Your task to perform on an android device: turn on translation in the chrome app Image 0: 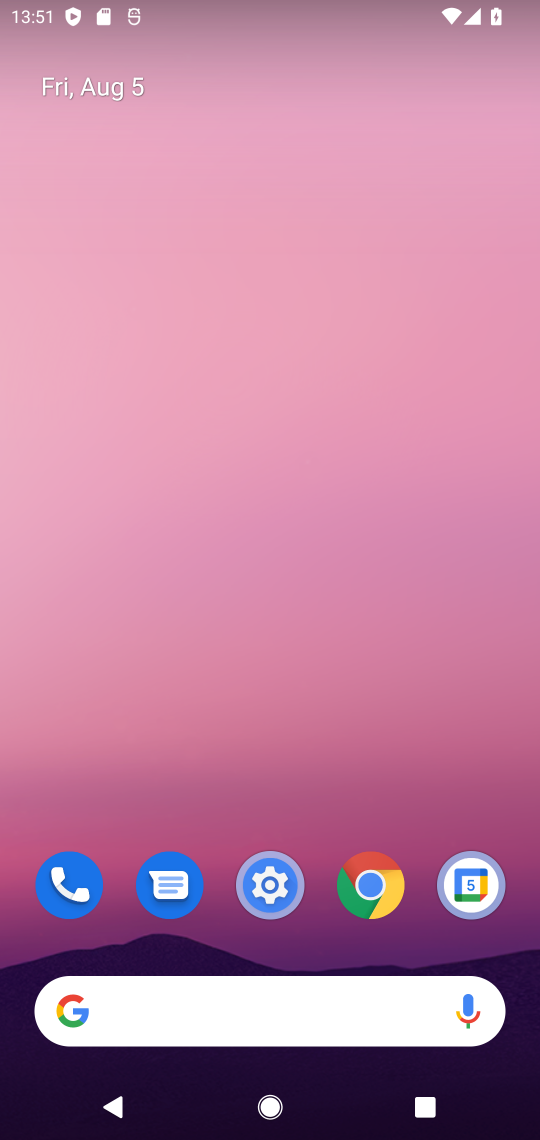
Step 0: click (370, 908)
Your task to perform on an android device: turn on translation in the chrome app Image 1: 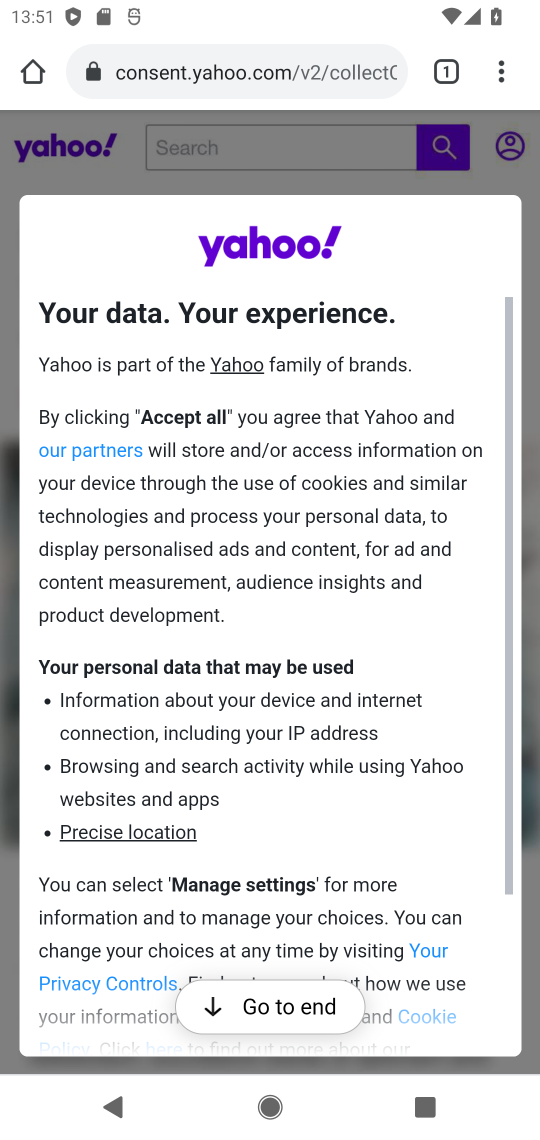
Step 1: click (498, 75)
Your task to perform on an android device: turn on translation in the chrome app Image 2: 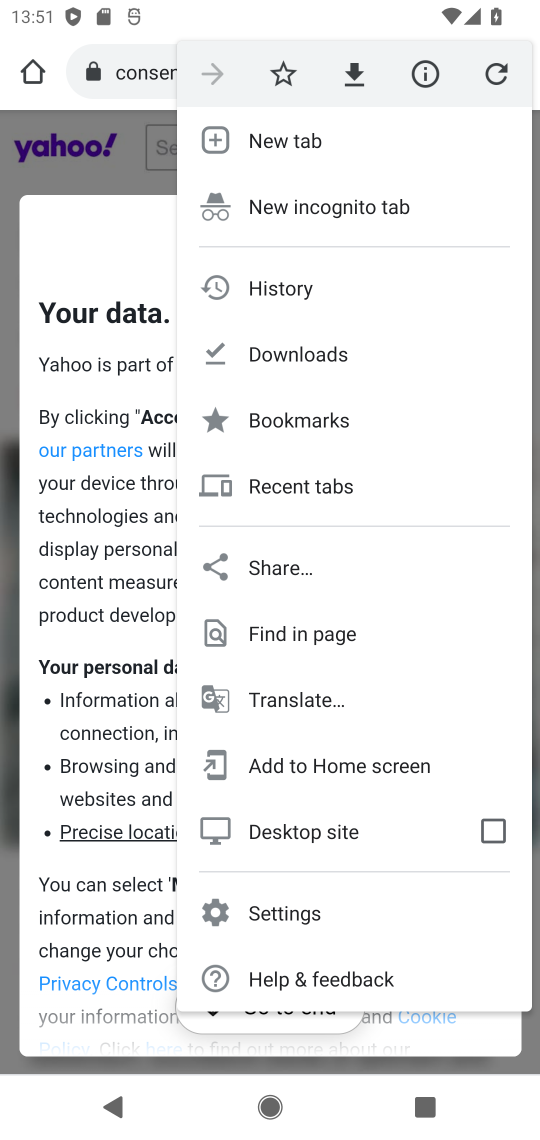
Step 2: click (264, 914)
Your task to perform on an android device: turn on translation in the chrome app Image 3: 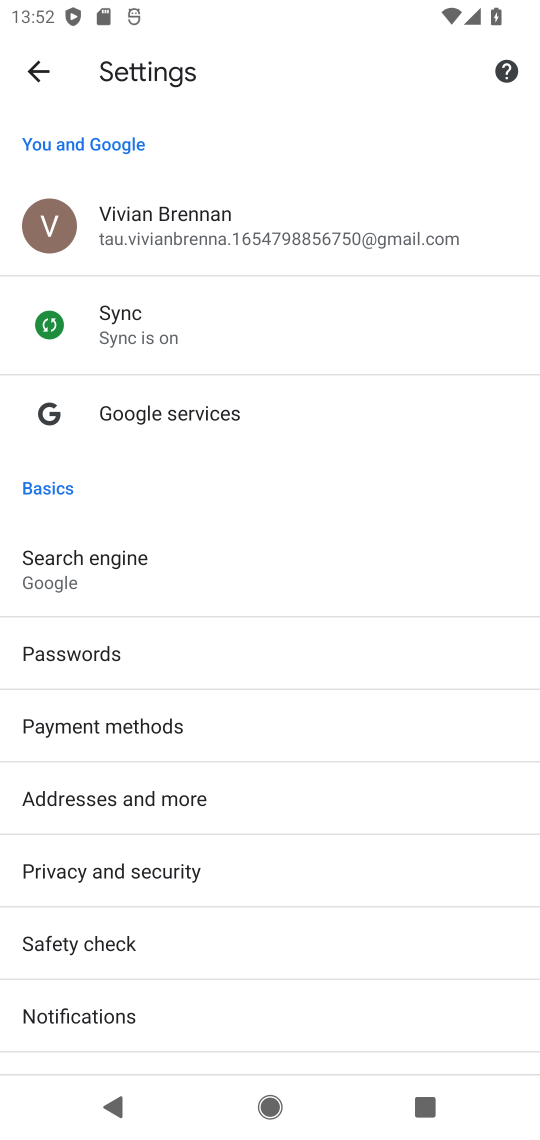
Step 3: drag from (176, 925) to (192, 460)
Your task to perform on an android device: turn on translation in the chrome app Image 4: 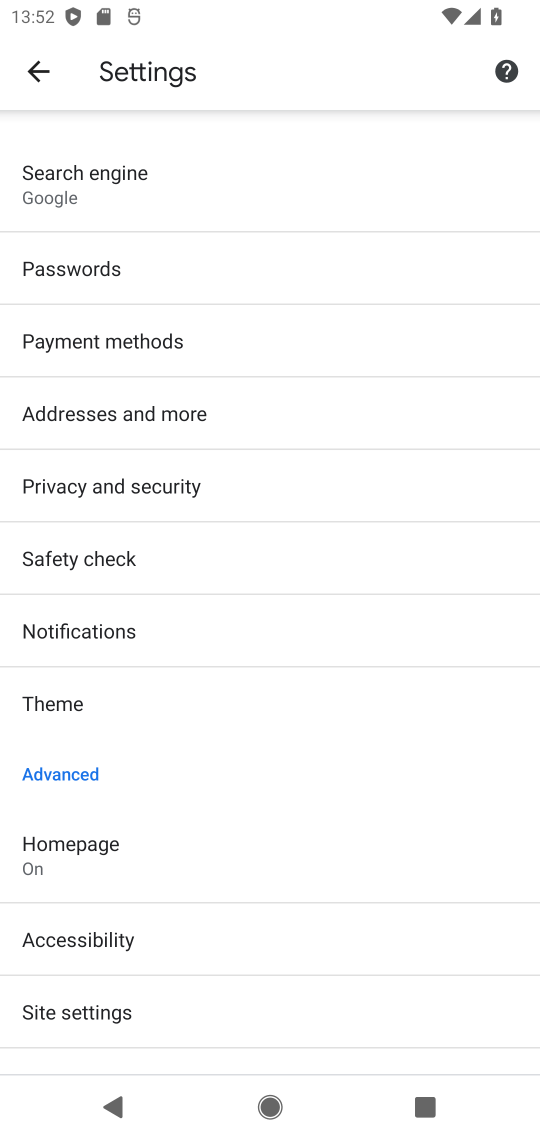
Step 4: drag from (142, 966) to (218, 581)
Your task to perform on an android device: turn on translation in the chrome app Image 5: 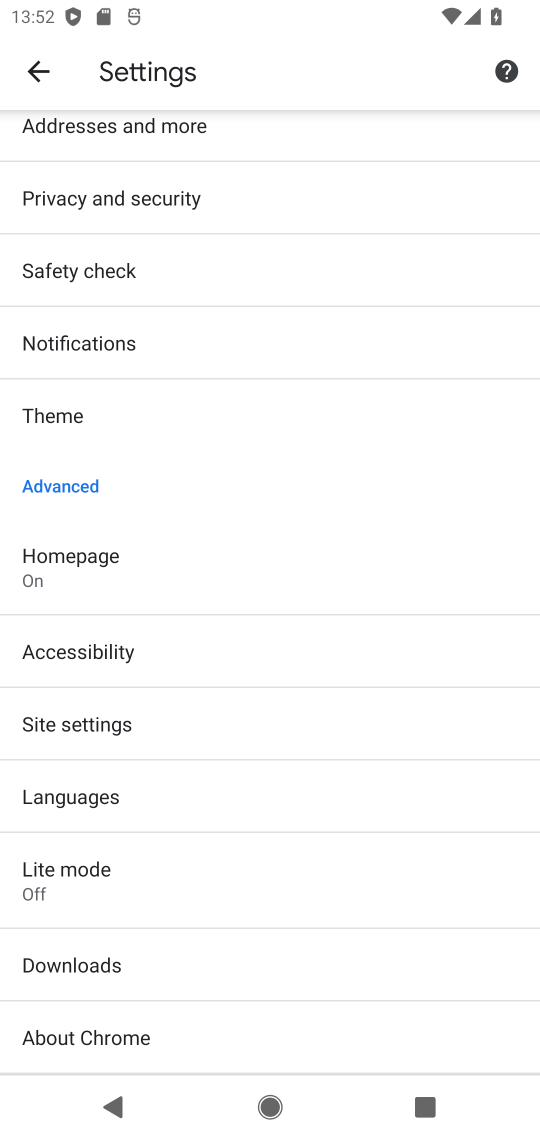
Step 5: click (71, 799)
Your task to perform on an android device: turn on translation in the chrome app Image 6: 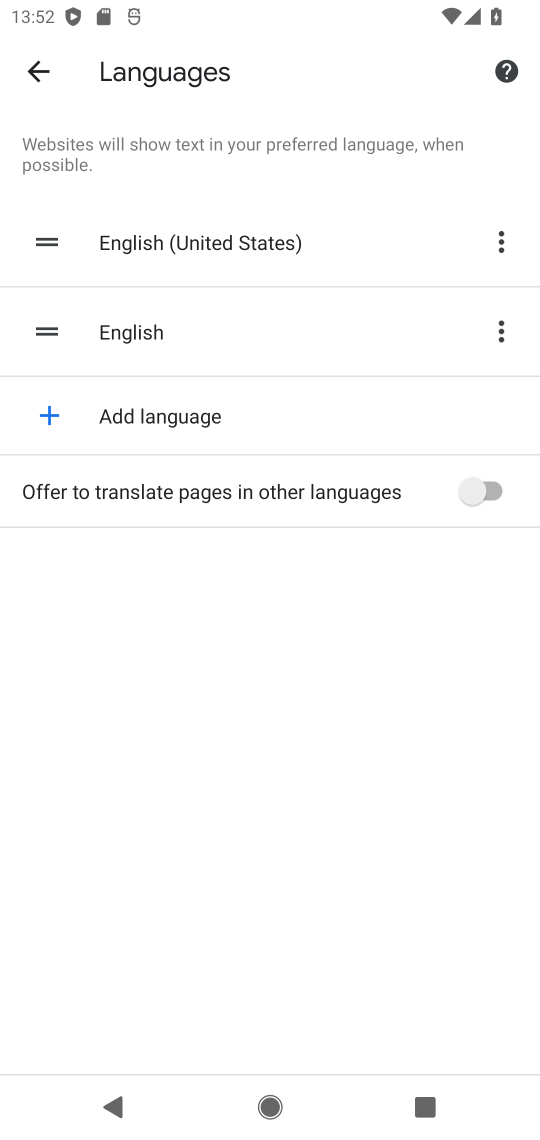
Step 6: click (500, 493)
Your task to perform on an android device: turn on translation in the chrome app Image 7: 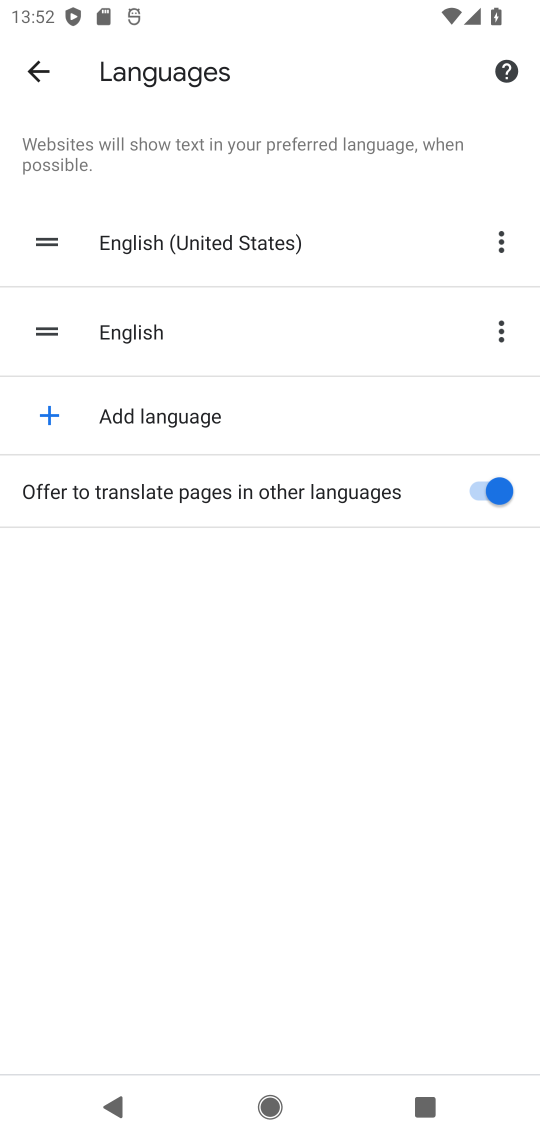
Step 7: task complete